Your task to perform on an android device: add a label to a message in the gmail app Image 0: 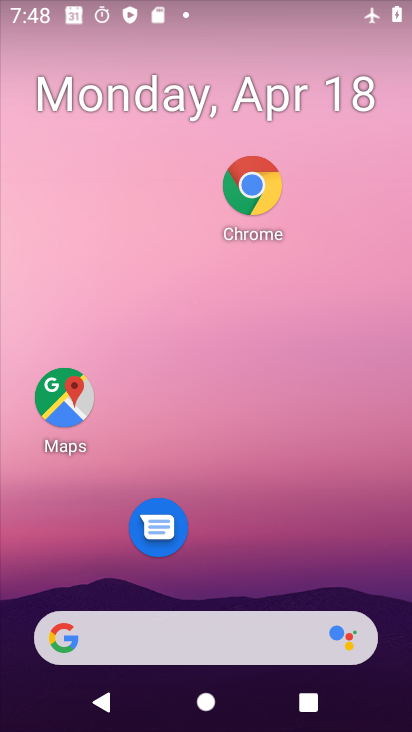
Step 0: click (251, 267)
Your task to perform on an android device: add a label to a message in the gmail app Image 1: 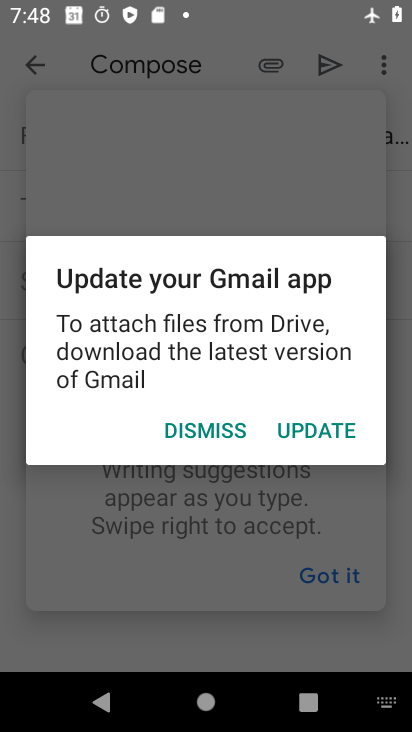
Step 1: press home button
Your task to perform on an android device: add a label to a message in the gmail app Image 2: 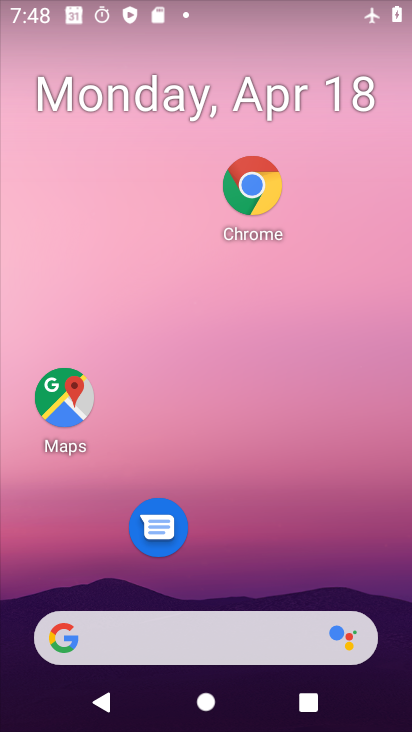
Step 2: drag from (255, 558) to (294, 252)
Your task to perform on an android device: add a label to a message in the gmail app Image 3: 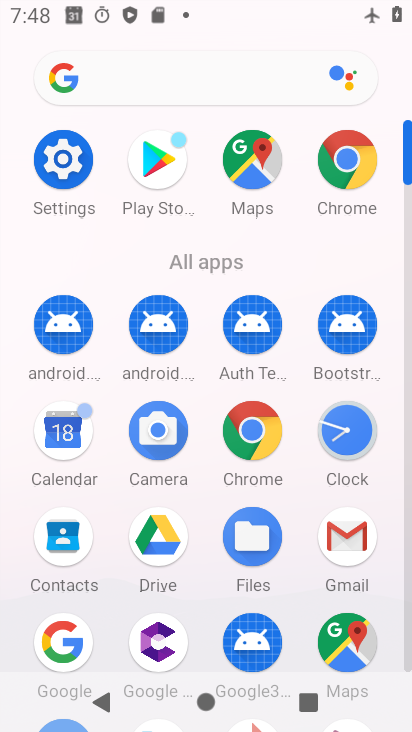
Step 3: click (329, 535)
Your task to perform on an android device: add a label to a message in the gmail app Image 4: 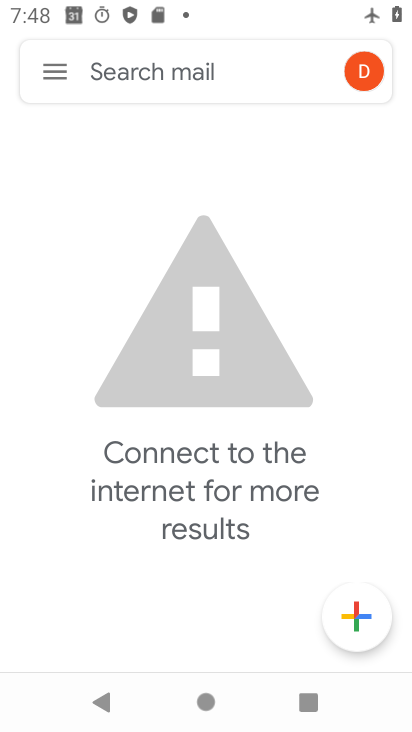
Step 4: click (65, 69)
Your task to perform on an android device: add a label to a message in the gmail app Image 5: 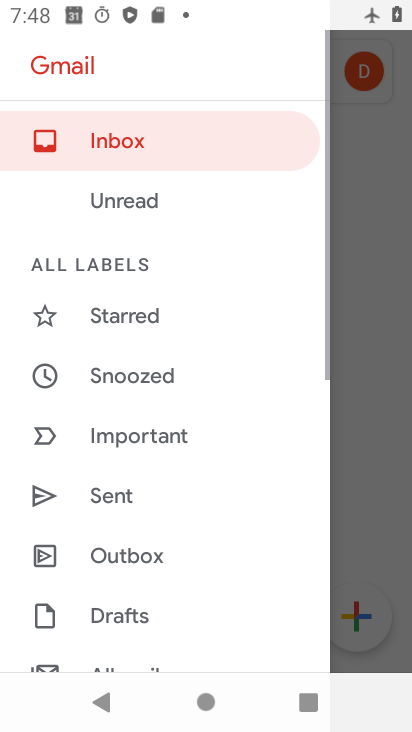
Step 5: drag from (139, 581) to (192, 177)
Your task to perform on an android device: add a label to a message in the gmail app Image 6: 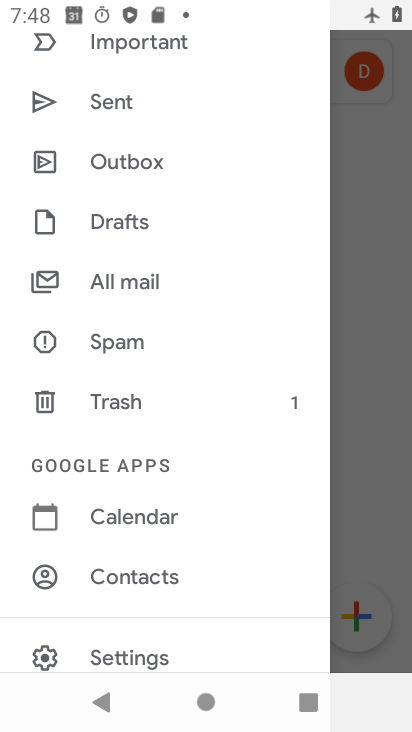
Step 6: click (118, 280)
Your task to perform on an android device: add a label to a message in the gmail app Image 7: 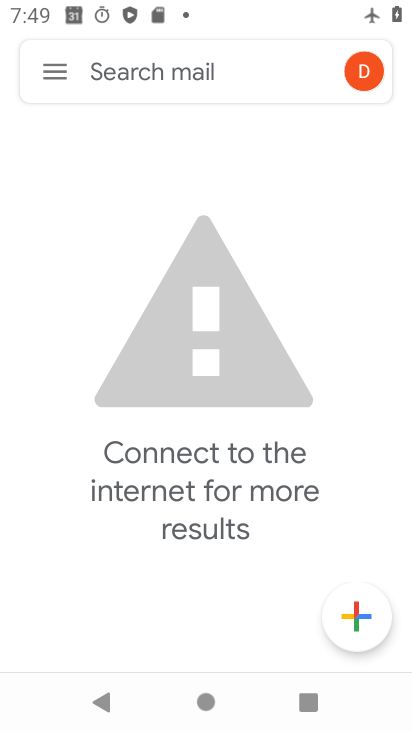
Step 7: task complete